Your task to perform on an android device: change notification settings in the gmail app Image 0: 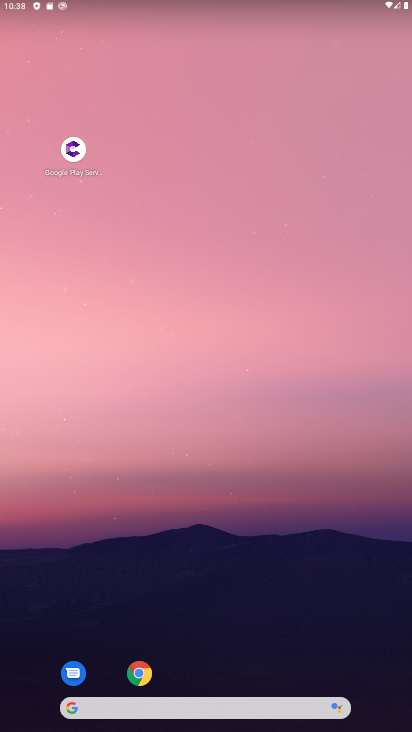
Step 0: drag from (225, 661) to (254, 2)
Your task to perform on an android device: change notification settings in the gmail app Image 1: 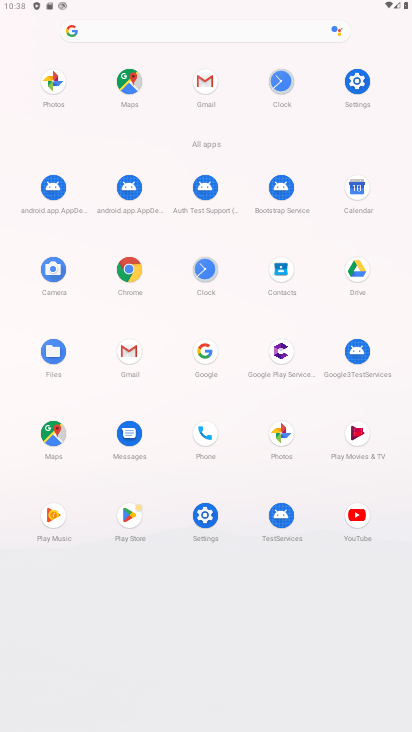
Step 1: click (129, 344)
Your task to perform on an android device: change notification settings in the gmail app Image 2: 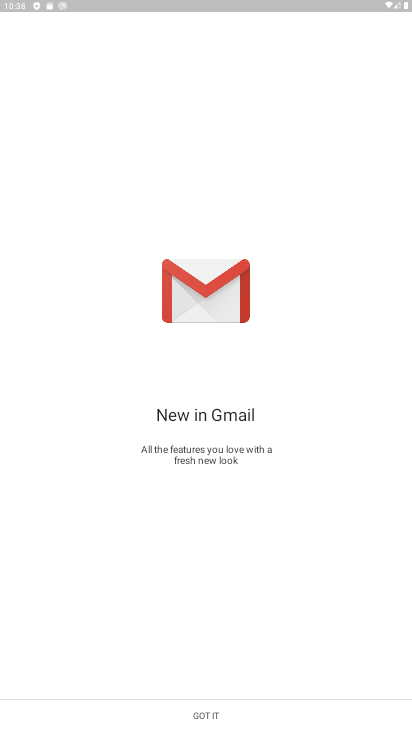
Step 2: click (199, 710)
Your task to perform on an android device: change notification settings in the gmail app Image 3: 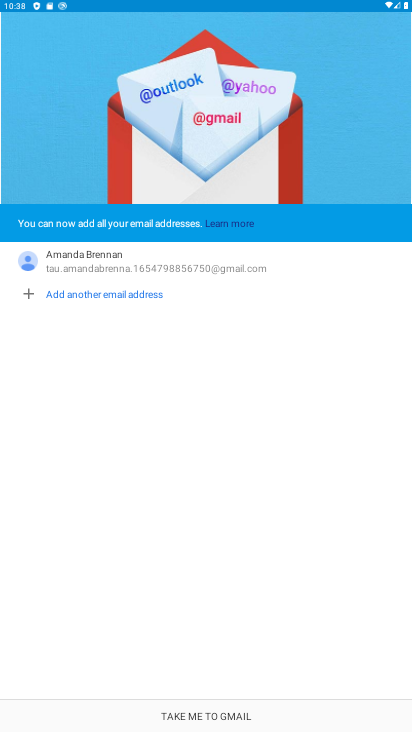
Step 3: click (217, 715)
Your task to perform on an android device: change notification settings in the gmail app Image 4: 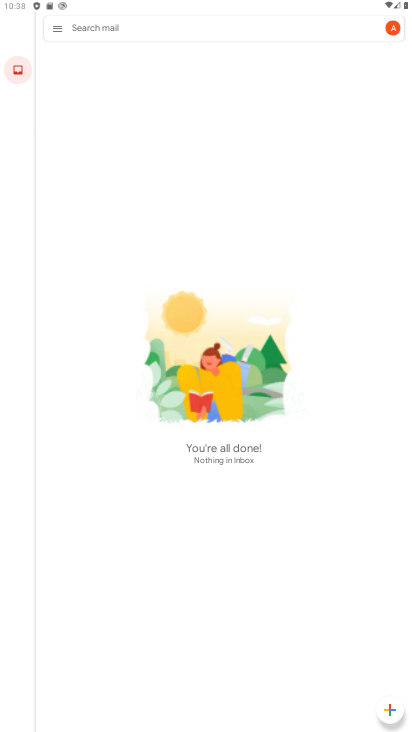
Step 4: click (49, 27)
Your task to perform on an android device: change notification settings in the gmail app Image 5: 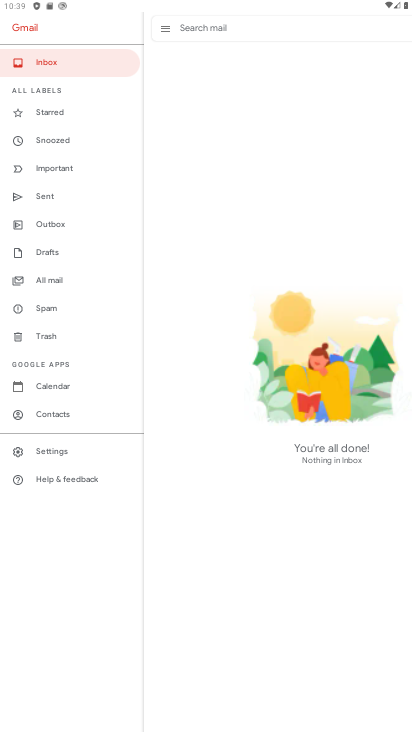
Step 5: click (62, 446)
Your task to perform on an android device: change notification settings in the gmail app Image 6: 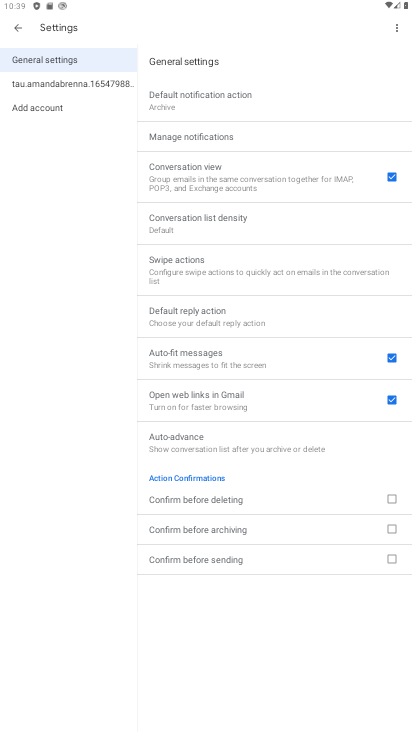
Step 6: click (180, 136)
Your task to perform on an android device: change notification settings in the gmail app Image 7: 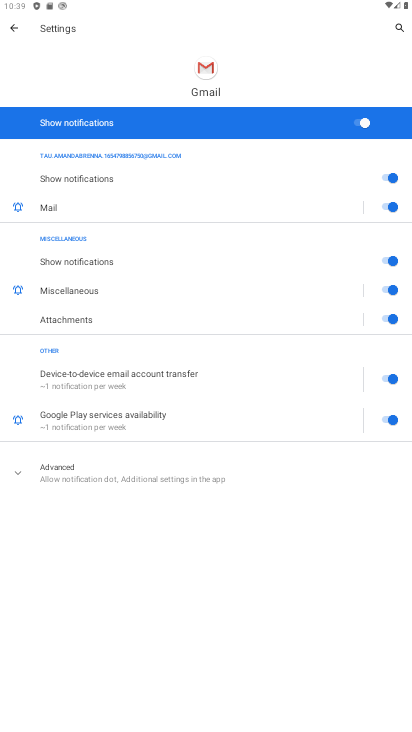
Step 7: click (371, 117)
Your task to perform on an android device: change notification settings in the gmail app Image 8: 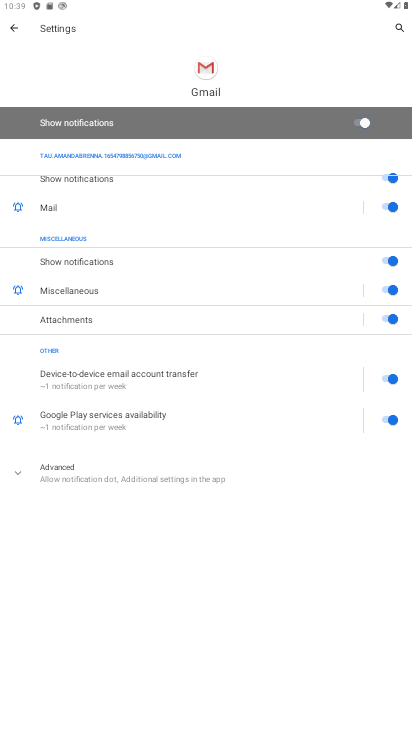
Step 8: task complete